Your task to perform on an android device: Open privacy settings Image 0: 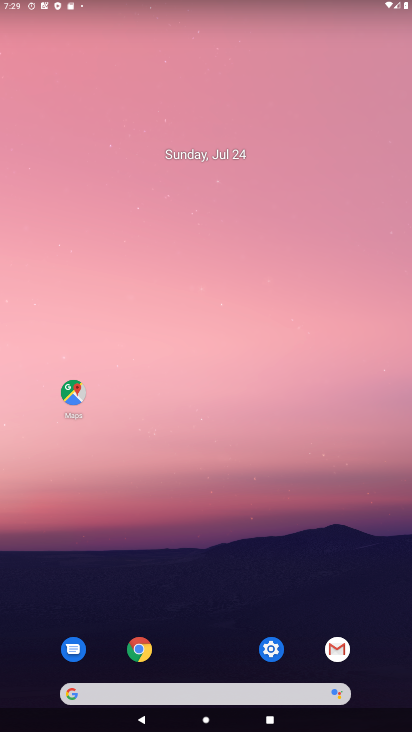
Step 0: click (271, 654)
Your task to perform on an android device: Open privacy settings Image 1: 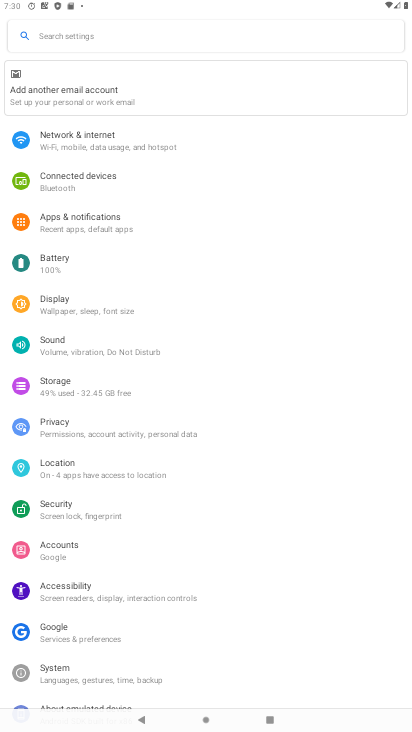
Step 1: click (88, 437)
Your task to perform on an android device: Open privacy settings Image 2: 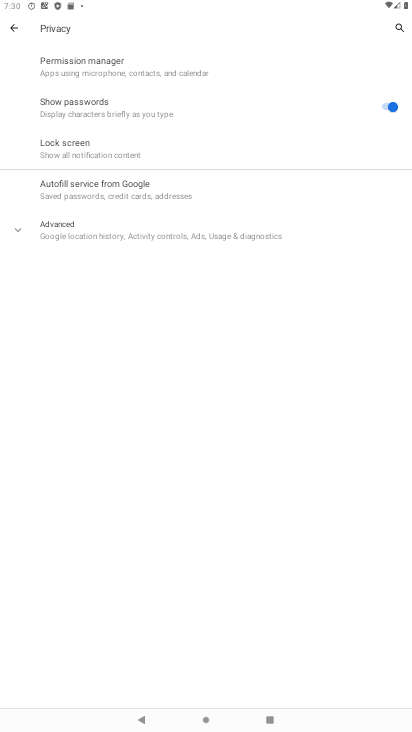
Step 2: task complete